Your task to perform on an android device: How do I get to the nearest Walmart? Image 0: 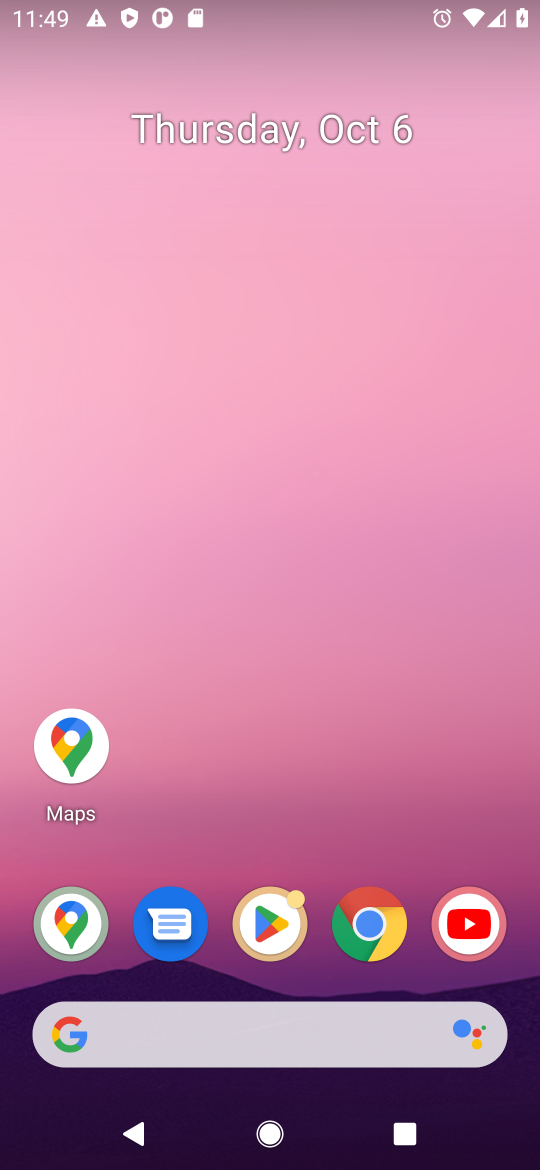
Step 0: click (367, 930)
Your task to perform on an android device: How do I get to the nearest Walmart? Image 1: 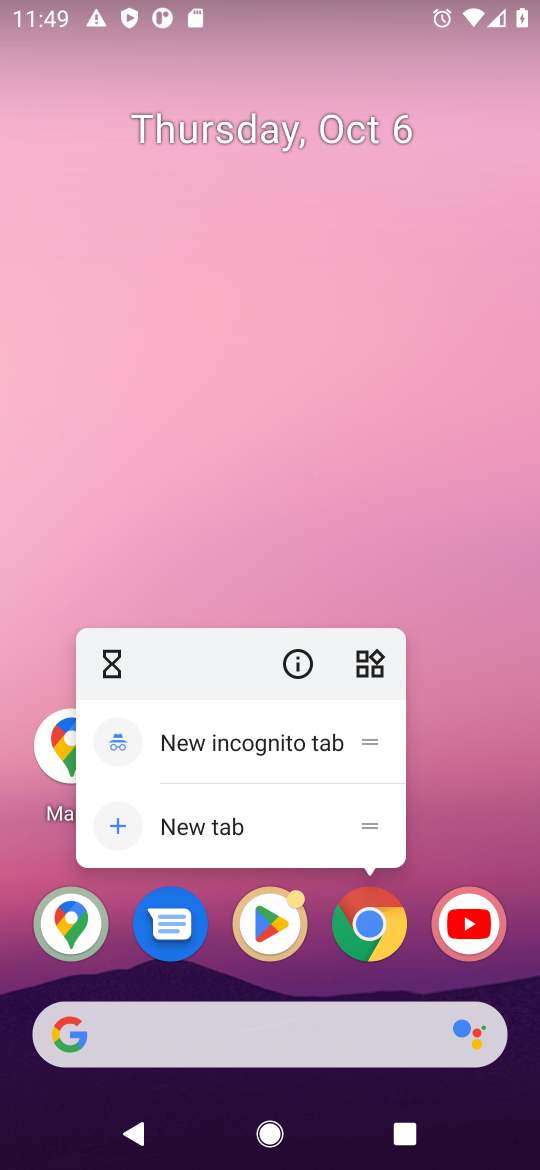
Step 1: click (367, 930)
Your task to perform on an android device: How do I get to the nearest Walmart? Image 2: 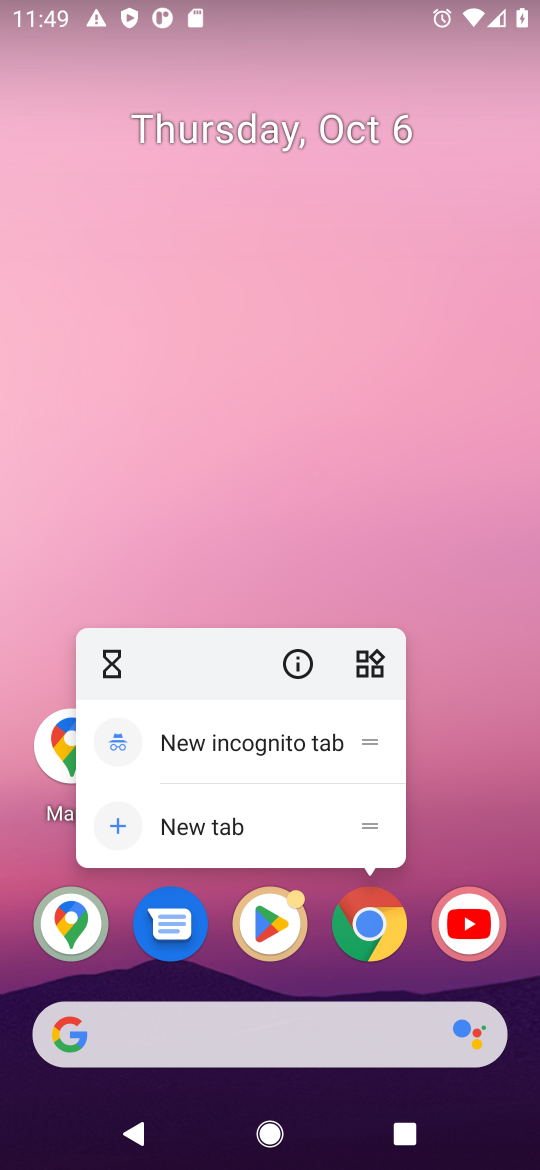
Step 2: click (367, 930)
Your task to perform on an android device: How do I get to the nearest Walmart? Image 3: 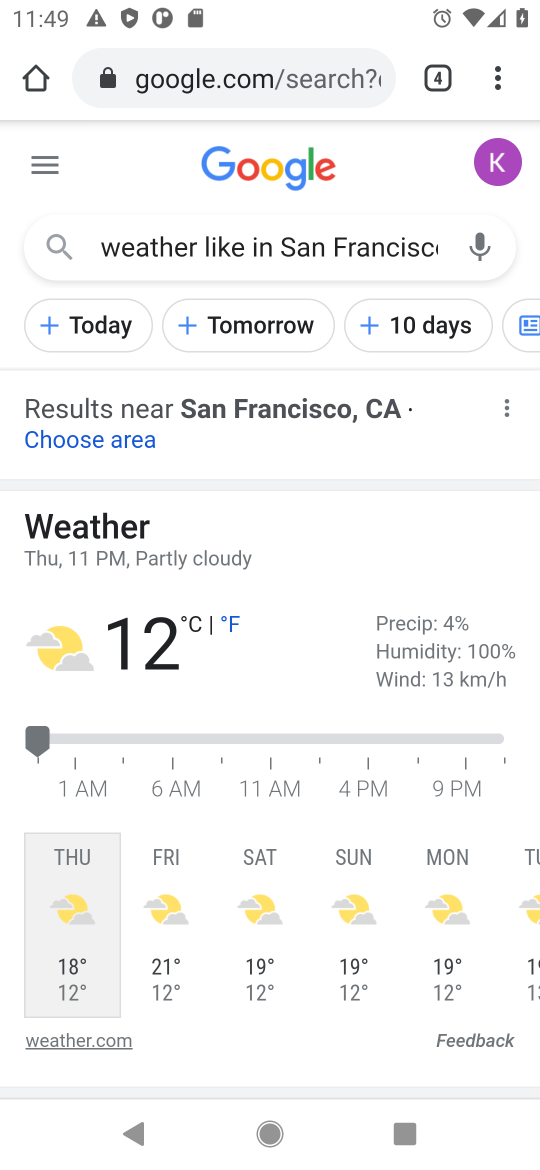
Step 3: click (316, 75)
Your task to perform on an android device: How do I get to the nearest Walmart? Image 4: 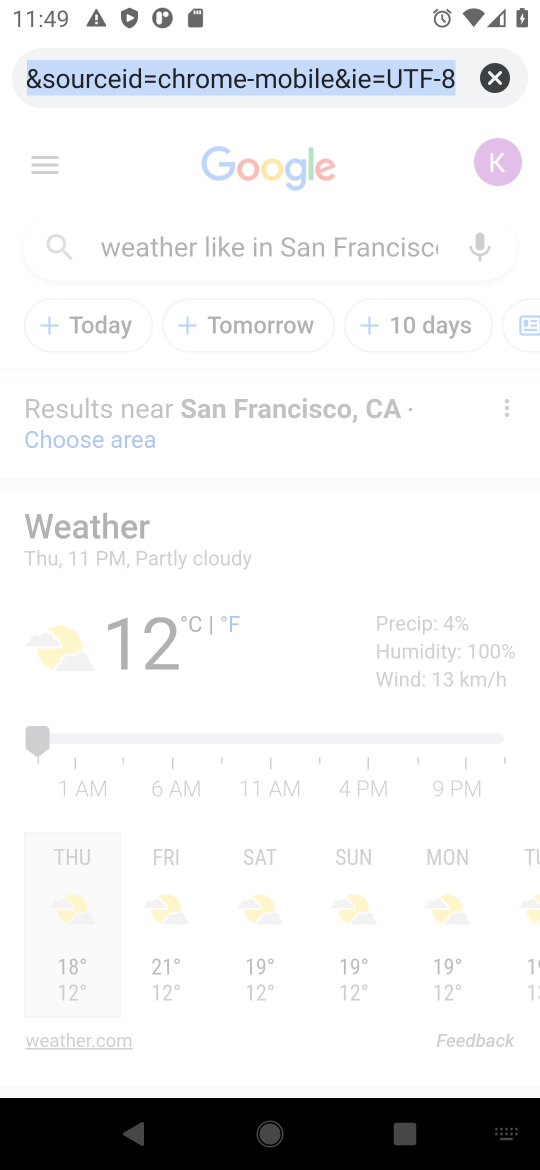
Step 4: click (493, 79)
Your task to perform on an android device: How do I get to the nearest Walmart? Image 5: 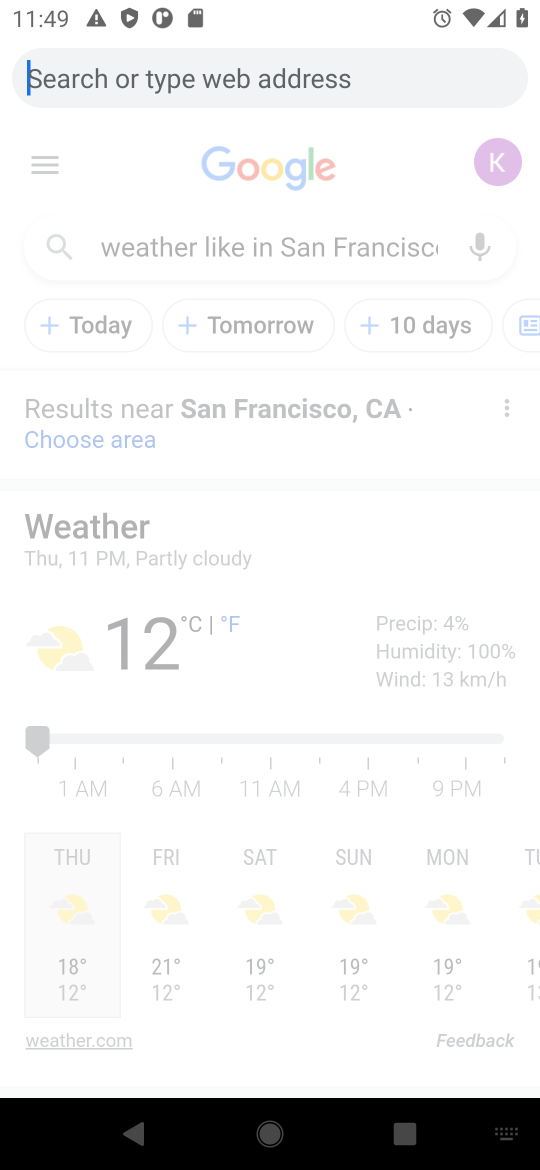
Step 5: type "nearest Walmart"
Your task to perform on an android device: How do I get to the nearest Walmart? Image 6: 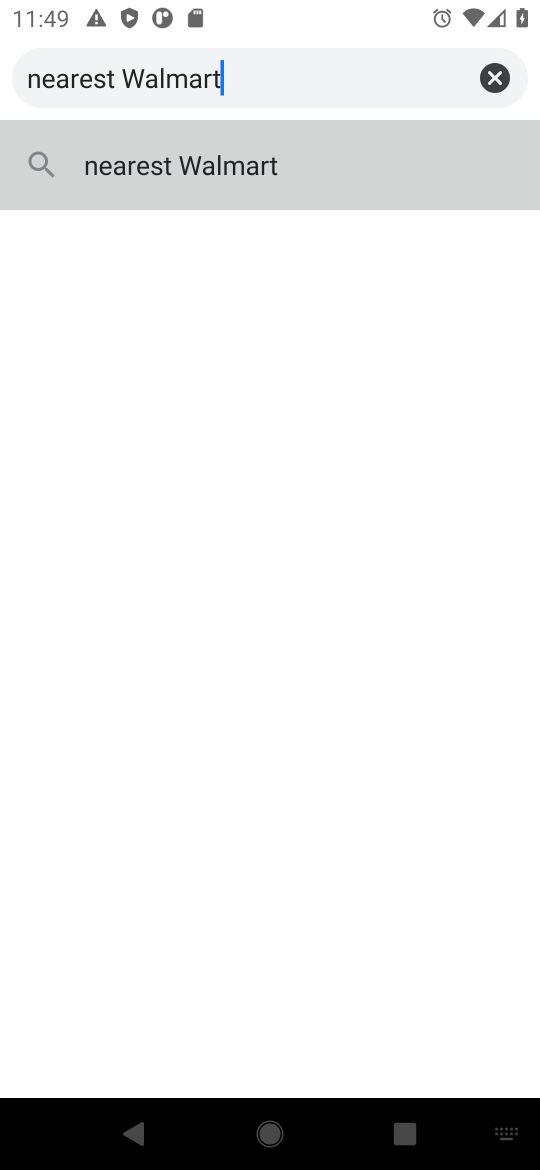
Step 6: click (213, 177)
Your task to perform on an android device: How do I get to the nearest Walmart? Image 7: 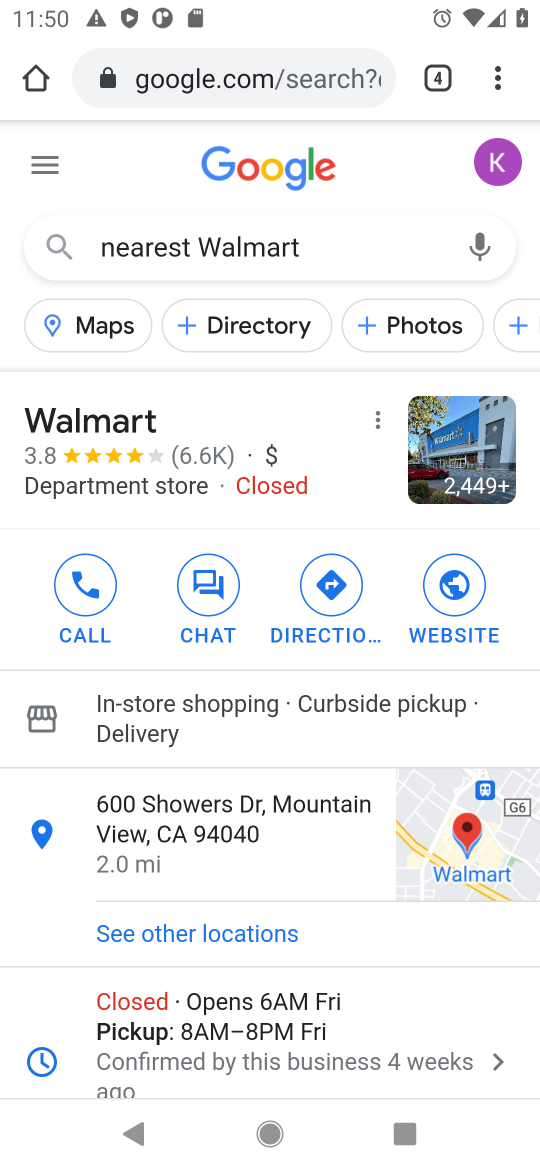
Step 7: task complete